Your task to perform on an android device: clear history in the chrome app Image 0: 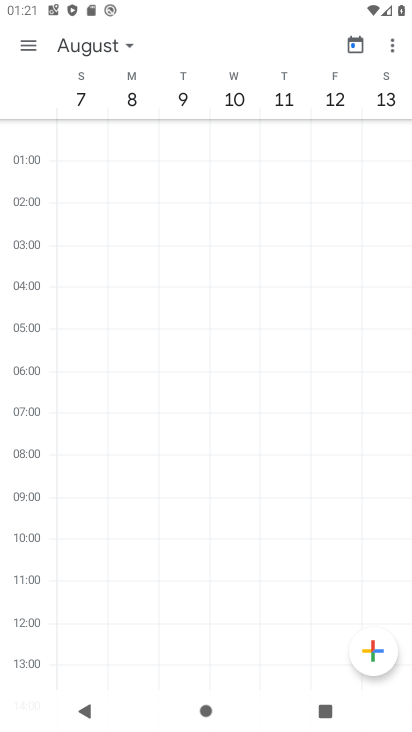
Step 0: press home button
Your task to perform on an android device: clear history in the chrome app Image 1: 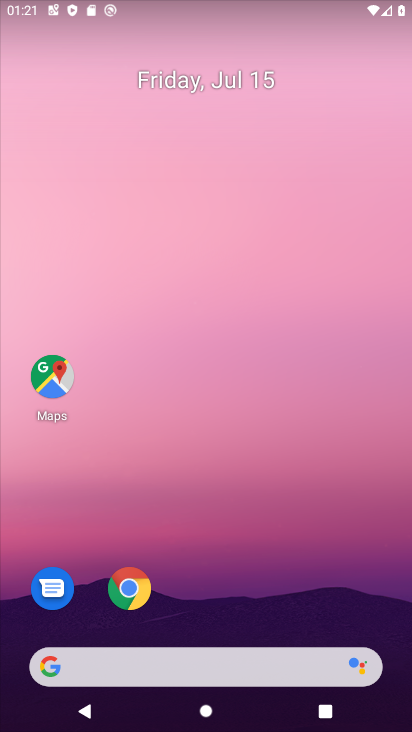
Step 1: click (129, 588)
Your task to perform on an android device: clear history in the chrome app Image 2: 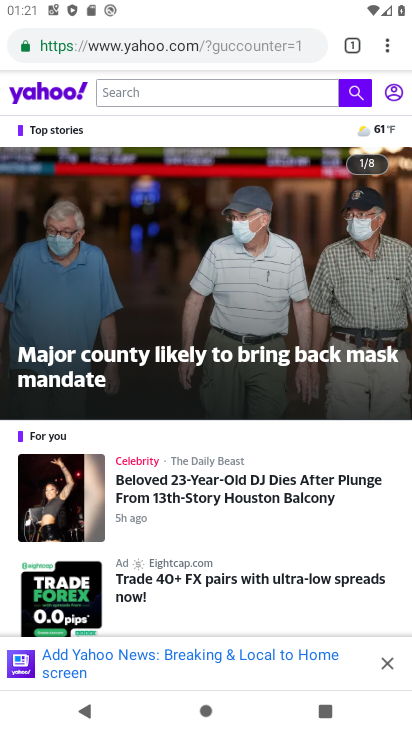
Step 2: click (387, 47)
Your task to perform on an android device: clear history in the chrome app Image 3: 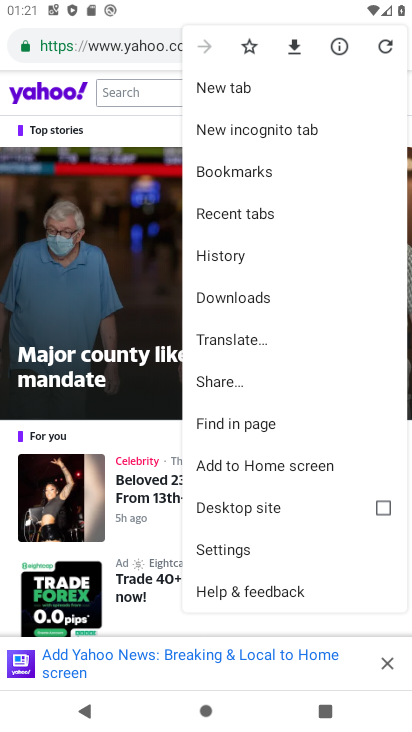
Step 3: click (212, 263)
Your task to perform on an android device: clear history in the chrome app Image 4: 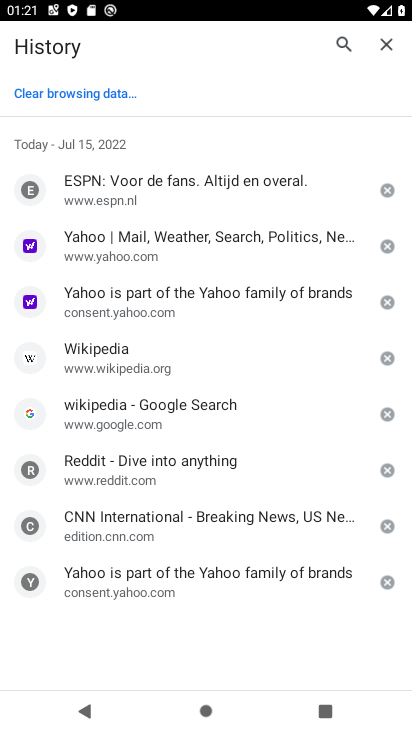
Step 4: click (80, 92)
Your task to perform on an android device: clear history in the chrome app Image 5: 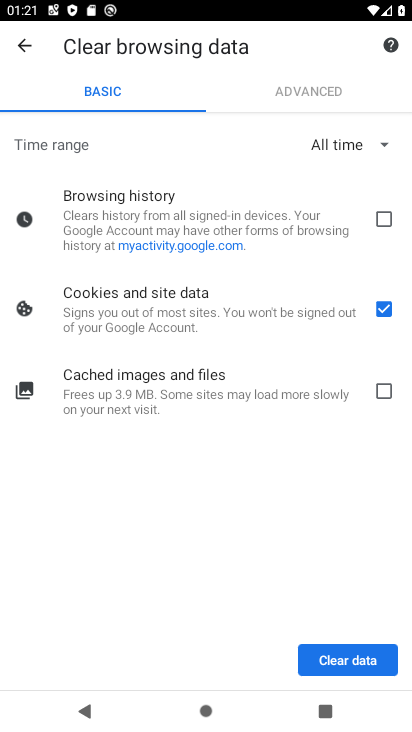
Step 5: click (376, 221)
Your task to perform on an android device: clear history in the chrome app Image 6: 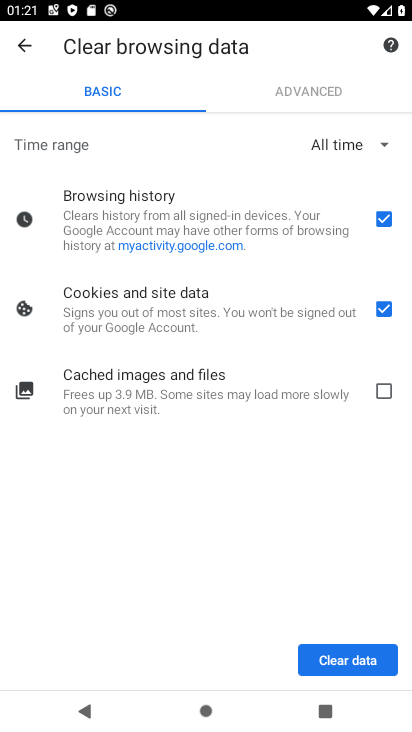
Step 6: click (387, 313)
Your task to perform on an android device: clear history in the chrome app Image 7: 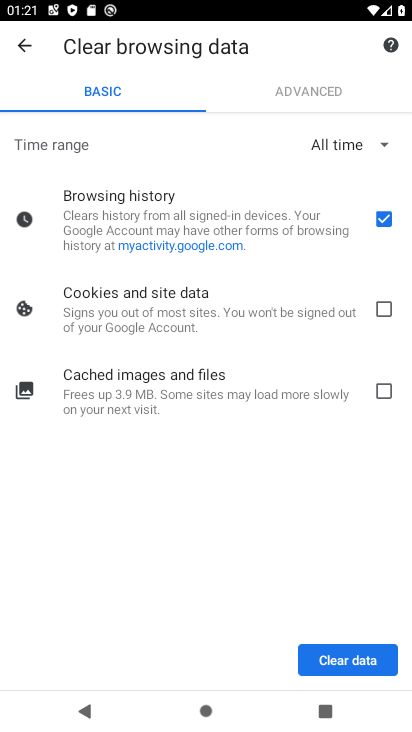
Step 7: click (348, 655)
Your task to perform on an android device: clear history in the chrome app Image 8: 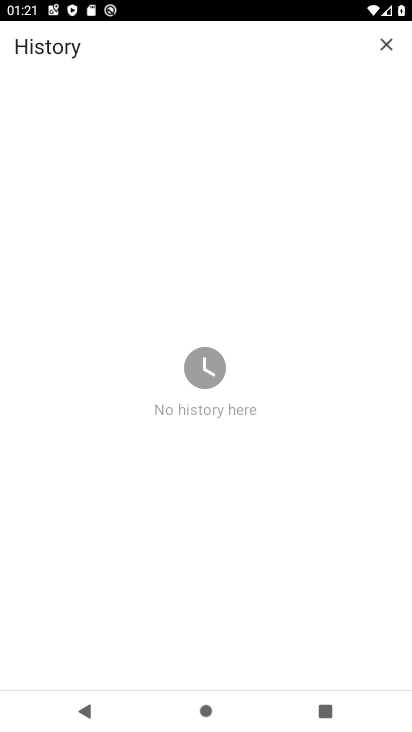
Step 8: task complete